Your task to perform on an android device: turn on javascript in the chrome app Image 0: 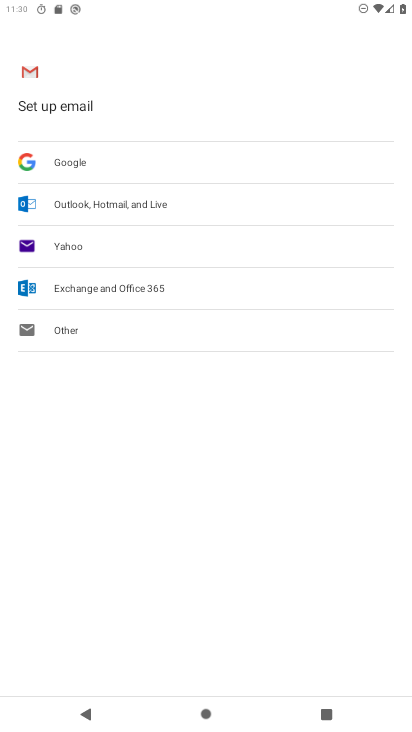
Step 0: press home button
Your task to perform on an android device: turn on javascript in the chrome app Image 1: 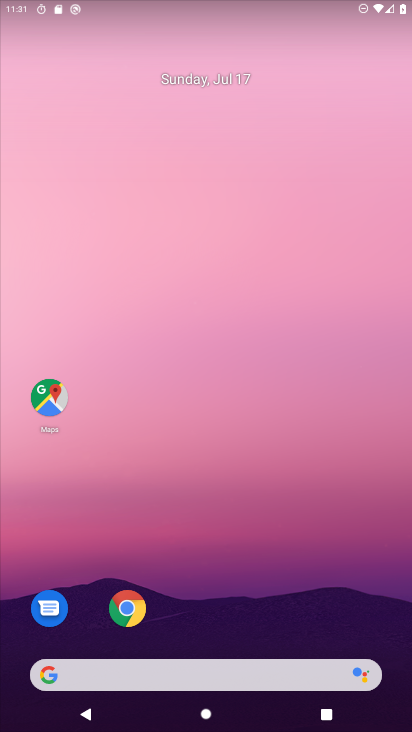
Step 1: click (127, 605)
Your task to perform on an android device: turn on javascript in the chrome app Image 2: 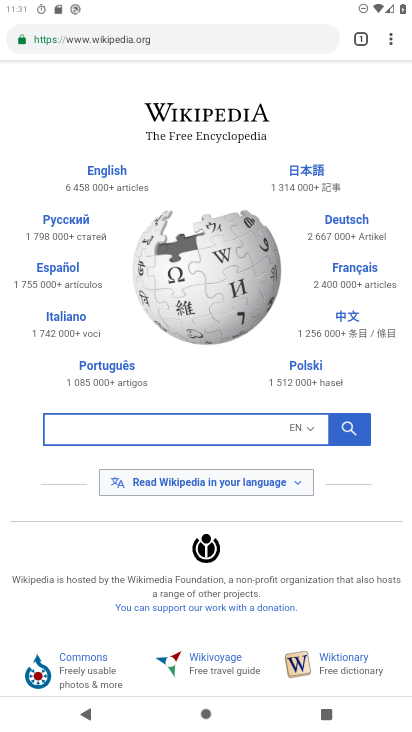
Step 2: click (391, 44)
Your task to perform on an android device: turn on javascript in the chrome app Image 3: 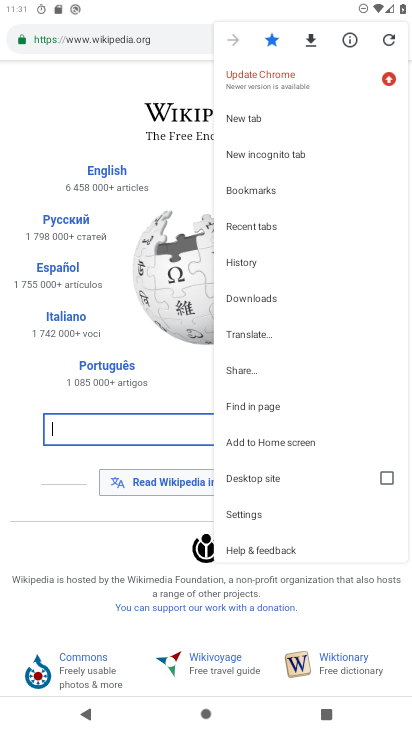
Step 3: click (247, 520)
Your task to perform on an android device: turn on javascript in the chrome app Image 4: 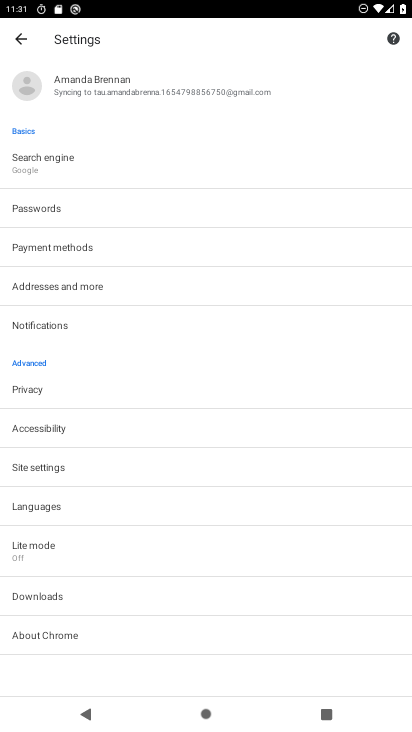
Step 4: click (27, 469)
Your task to perform on an android device: turn on javascript in the chrome app Image 5: 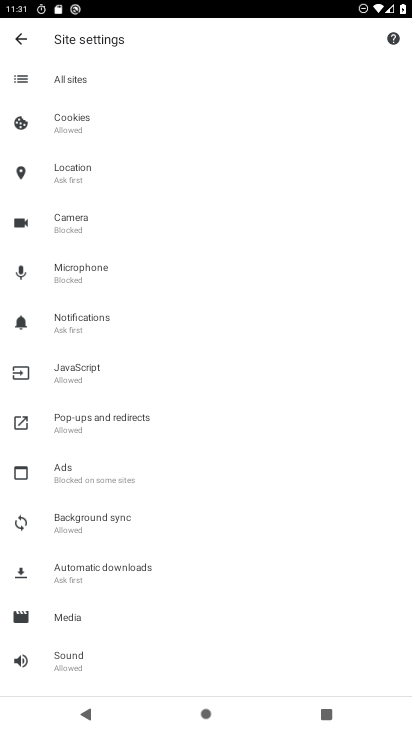
Step 5: click (109, 386)
Your task to perform on an android device: turn on javascript in the chrome app Image 6: 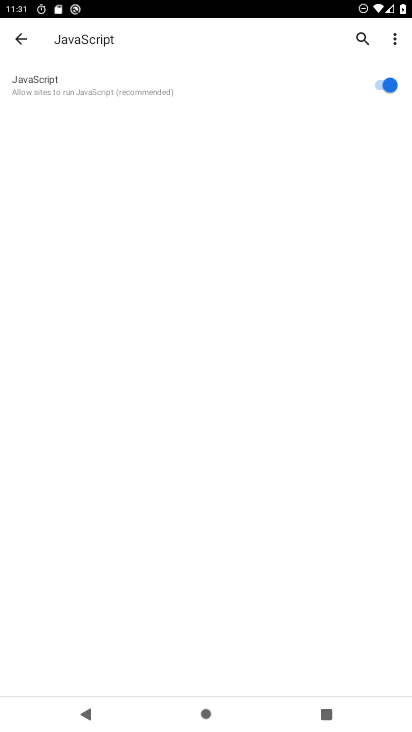
Step 6: task complete